Your task to perform on an android device: check android version Image 0: 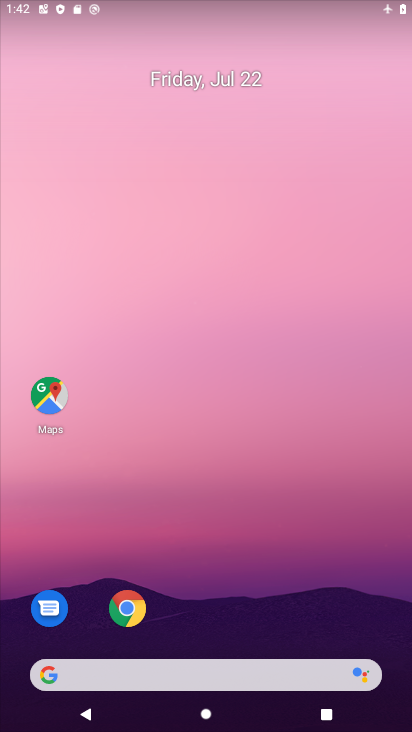
Step 0: drag from (242, 693) to (215, 480)
Your task to perform on an android device: check android version Image 1: 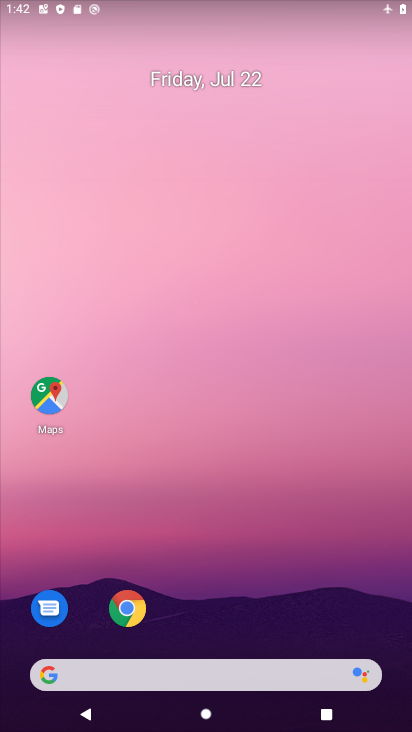
Step 1: drag from (255, 690) to (269, 19)
Your task to perform on an android device: check android version Image 2: 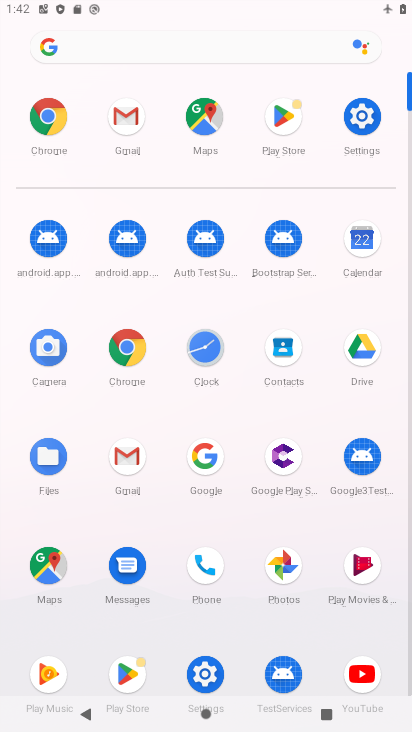
Step 2: click (358, 120)
Your task to perform on an android device: check android version Image 3: 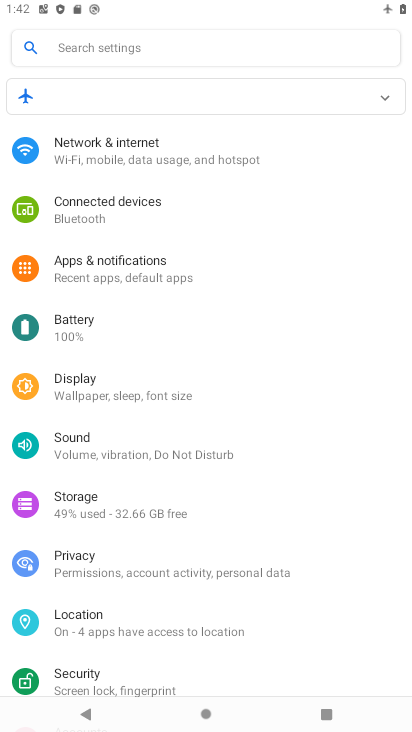
Step 3: drag from (124, 674) to (70, 285)
Your task to perform on an android device: check android version Image 4: 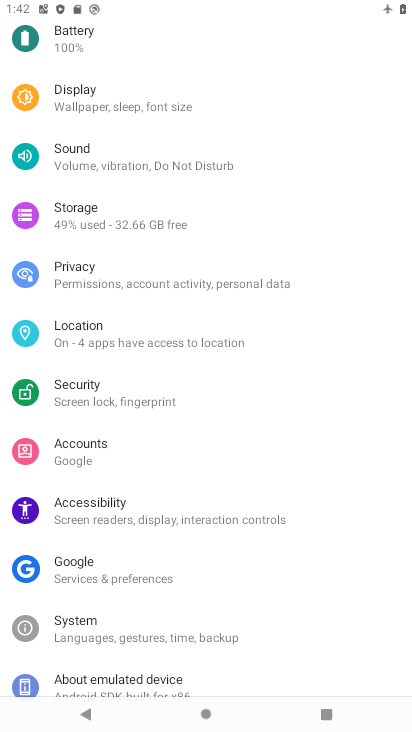
Step 4: drag from (106, 676) to (71, 354)
Your task to perform on an android device: check android version Image 5: 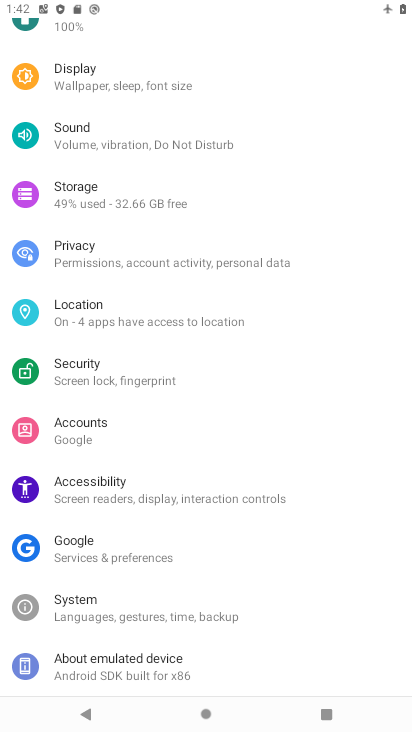
Step 5: click (119, 663)
Your task to perform on an android device: check android version Image 6: 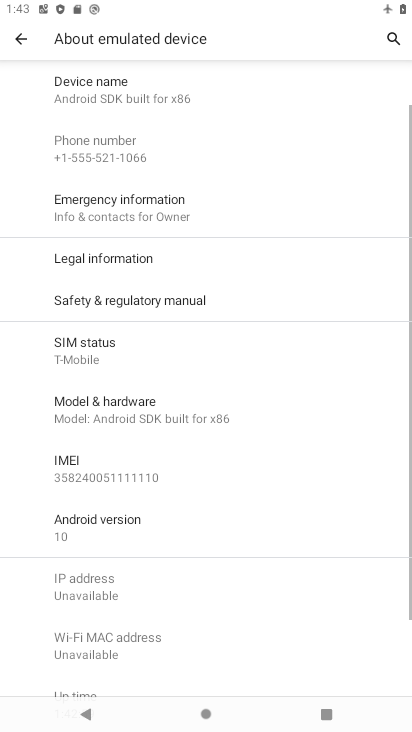
Step 6: click (101, 517)
Your task to perform on an android device: check android version Image 7: 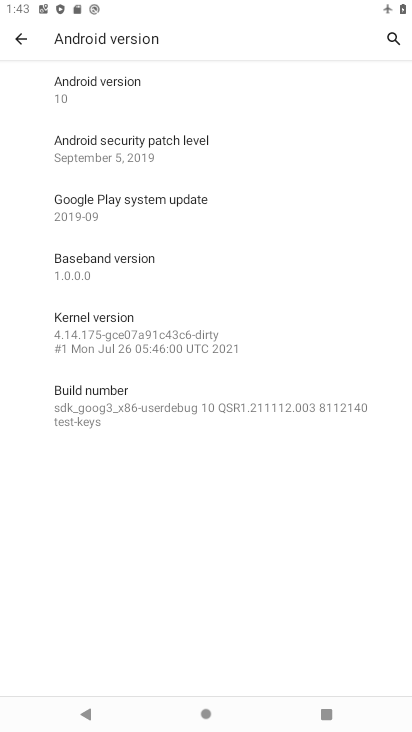
Step 7: click (75, 88)
Your task to perform on an android device: check android version Image 8: 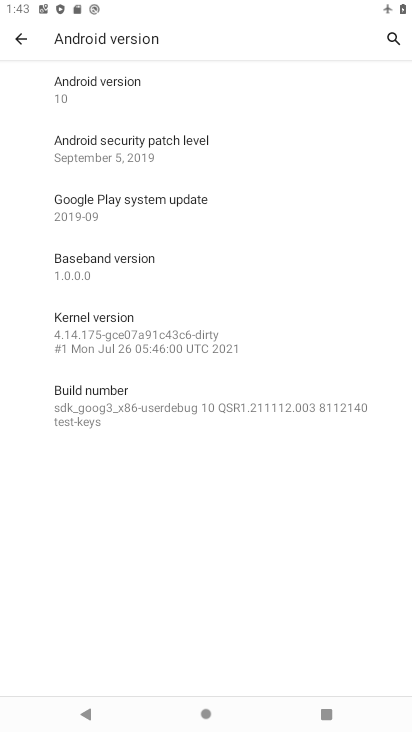
Step 8: task complete